Your task to perform on an android device: turn off notifications in google photos Image 0: 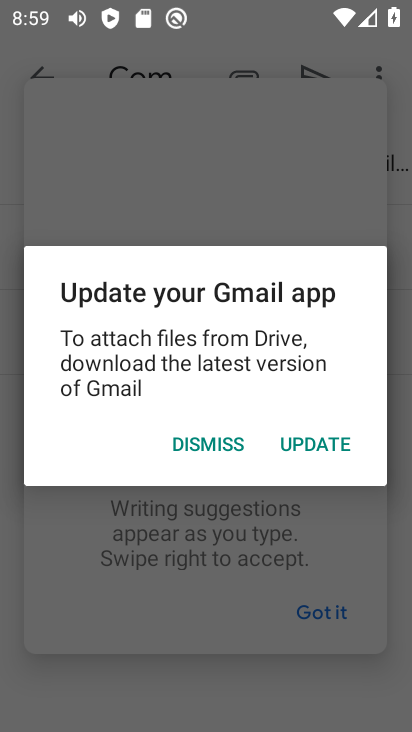
Step 0: press home button
Your task to perform on an android device: turn off notifications in google photos Image 1: 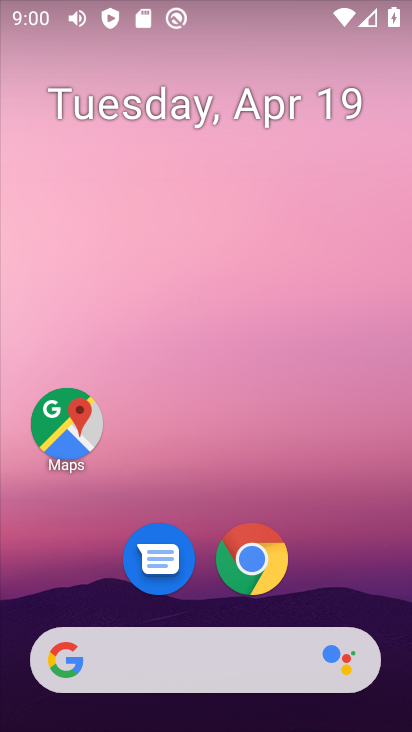
Step 1: drag from (384, 616) to (329, 77)
Your task to perform on an android device: turn off notifications in google photos Image 2: 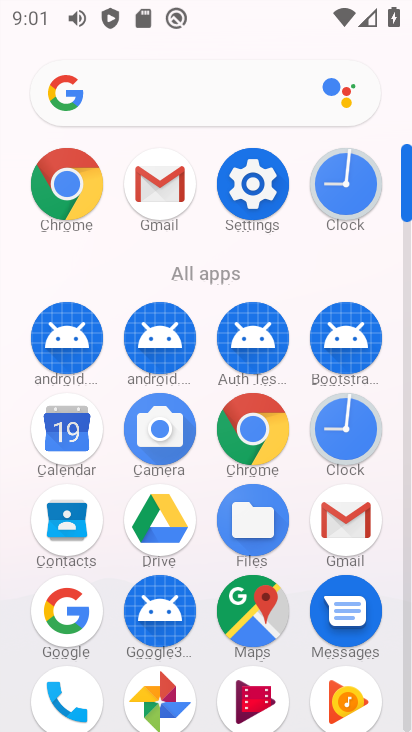
Step 2: click (138, 683)
Your task to perform on an android device: turn off notifications in google photos Image 3: 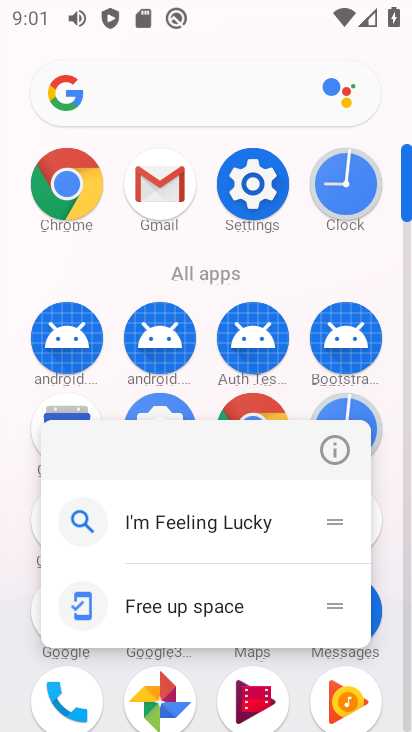
Step 3: click (145, 688)
Your task to perform on an android device: turn off notifications in google photos Image 4: 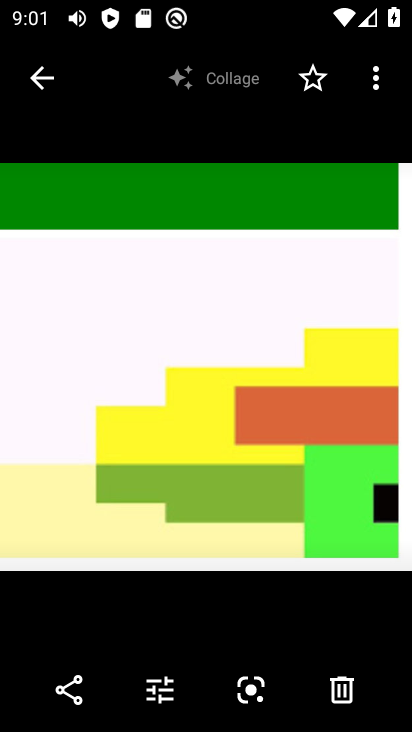
Step 4: click (28, 74)
Your task to perform on an android device: turn off notifications in google photos Image 5: 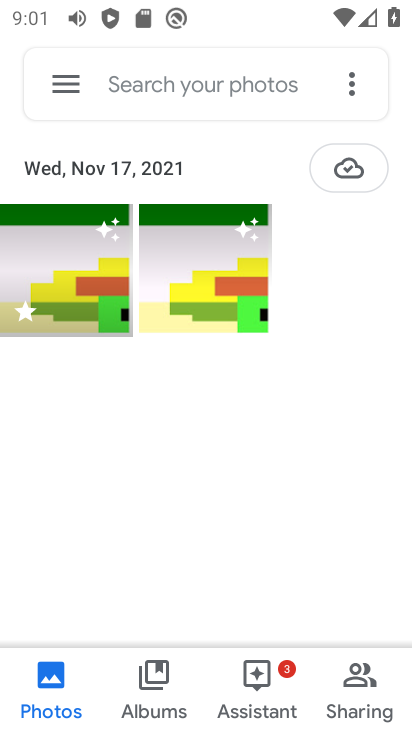
Step 5: click (65, 74)
Your task to perform on an android device: turn off notifications in google photos Image 6: 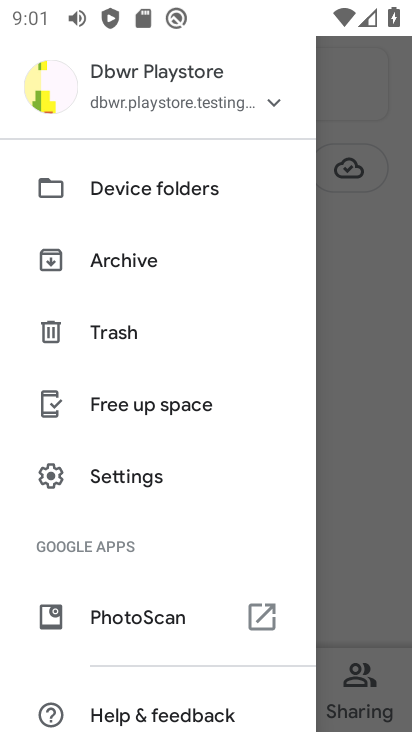
Step 6: drag from (263, 327) to (263, 168)
Your task to perform on an android device: turn off notifications in google photos Image 7: 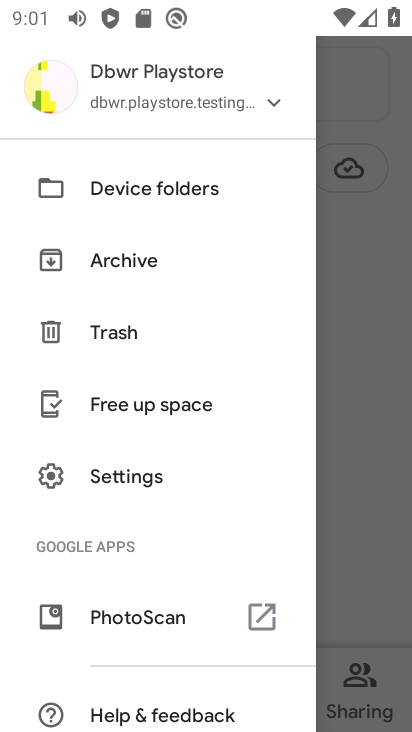
Step 7: drag from (253, 445) to (244, 143)
Your task to perform on an android device: turn off notifications in google photos Image 8: 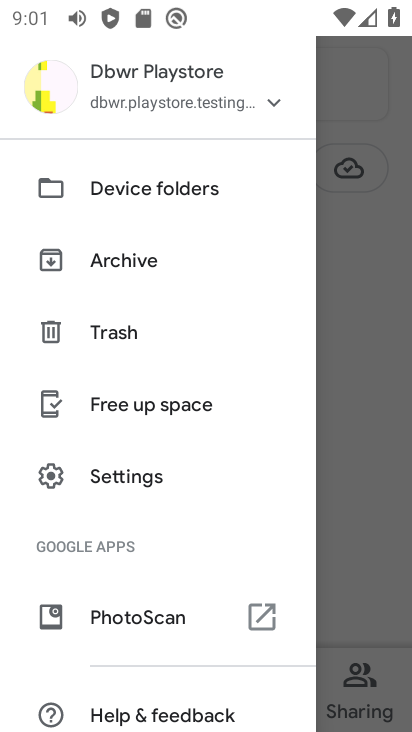
Step 8: drag from (276, 493) to (264, 184)
Your task to perform on an android device: turn off notifications in google photos Image 9: 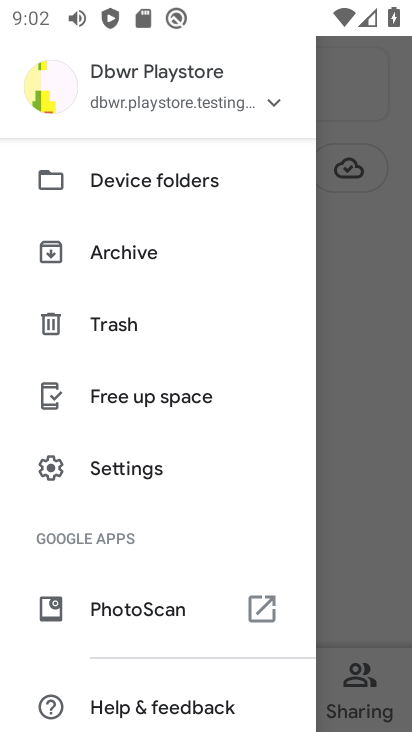
Step 9: drag from (297, 610) to (278, 232)
Your task to perform on an android device: turn off notifications in google photos Image 10: 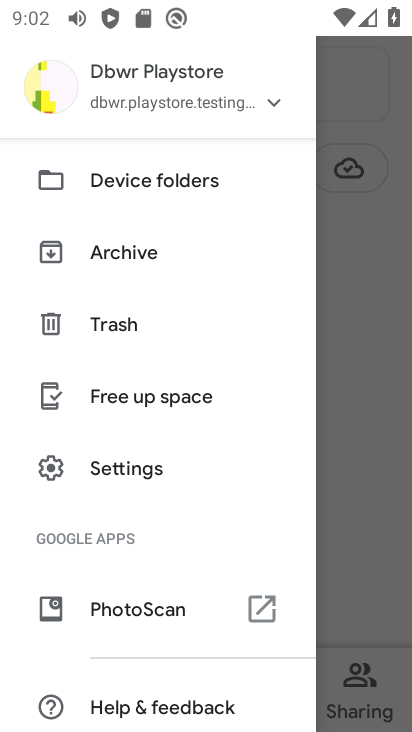
Step 10: click (104, 459)
Your task to perform on an android device: turn off notifications in google photos Image 11: 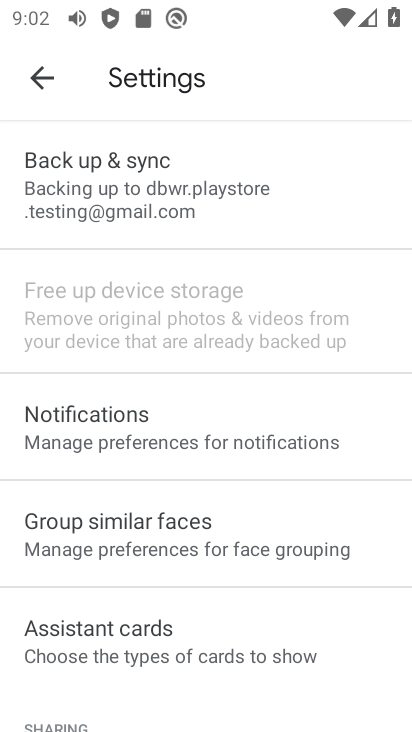
Step 11: click (105, 437)
Your task to perform on an android device: turn off notifications in google photos Image 12: 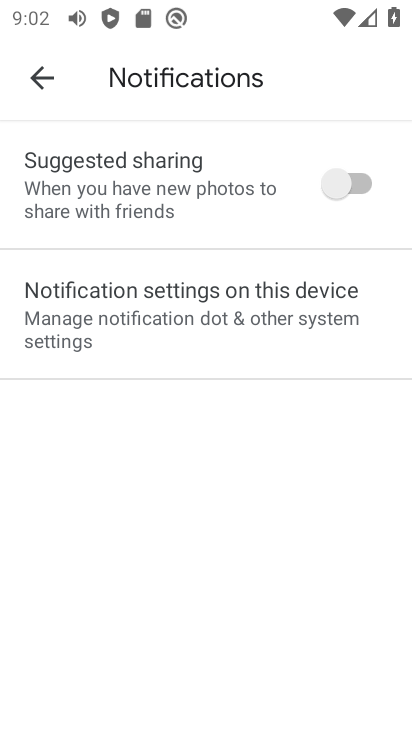
Step 12: task complete